Your task to perform on an android device: turn off translation in the chrome app Image 0: 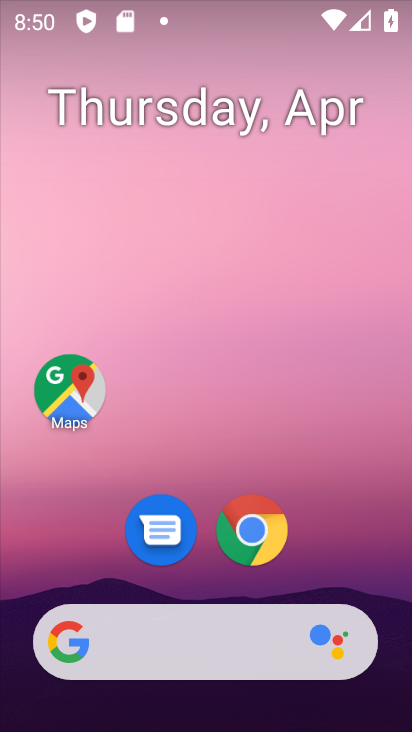
Step 0: drag from (375, 554) to (305, 96)
Your task to perform on an android device: turn off translation in the chrome app Image 1: 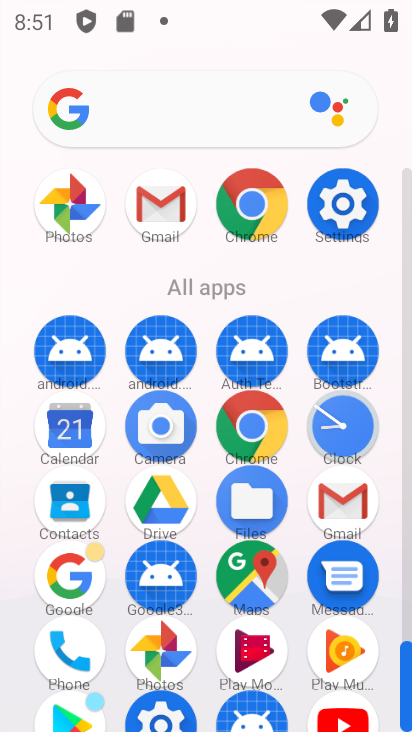
Step 1: click (257, 430)
Your task to perform on an android device: turn off translation in the chrome app Image 2: 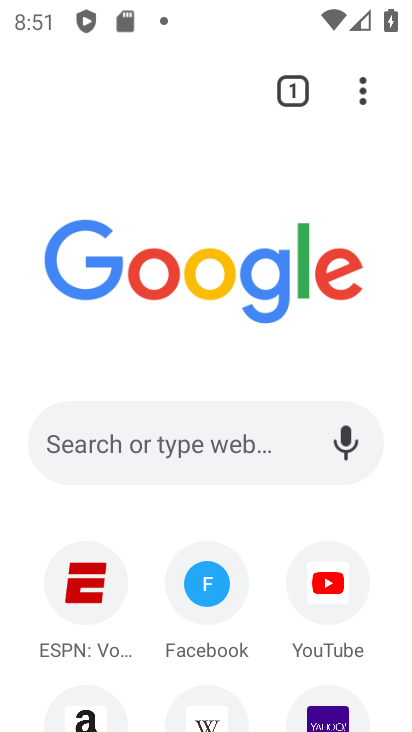
Step 2: click (366, 80)
Your task to perform on an android device: turn off translation in the chrome app Image 3: 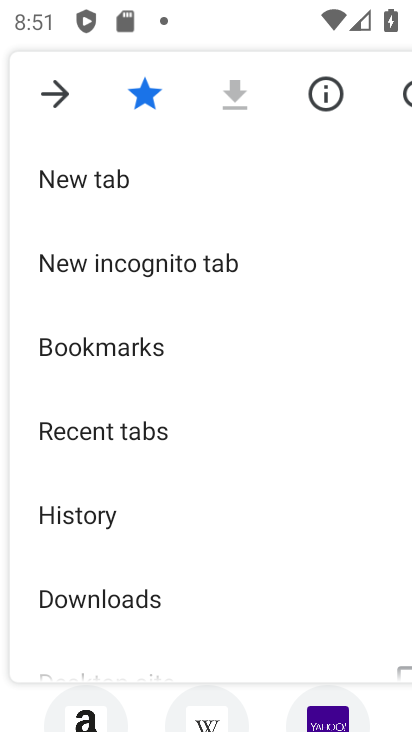
Step 3: drag from (142, 601) to (167, 283)
Your task to perform on an android device: turn off translation in the chrome app Image 4: 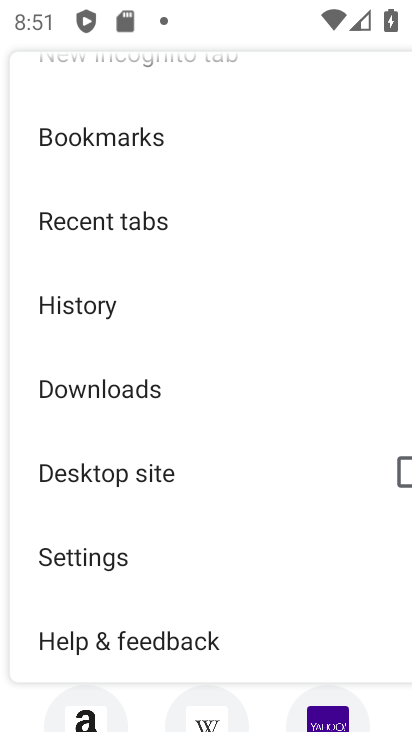
Step 4: click (128, 558)
Your task to perform on an android device: turn off translation in the chrome app Image 5: 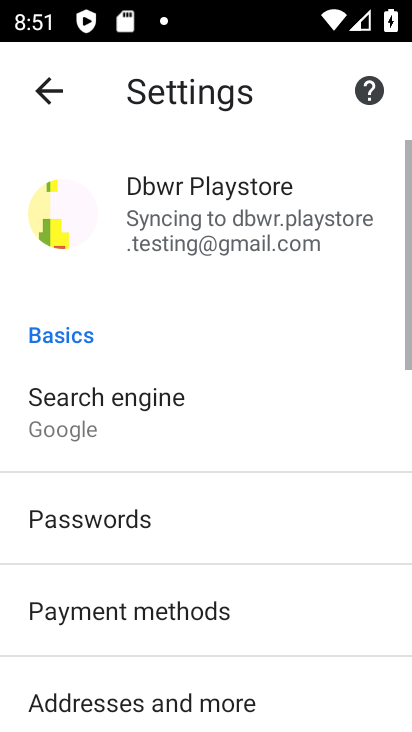
Step 5: drag from (188, 621) to (275, 236)
Your task to perform on an android device: turn off translation in the chrome app Image 6: 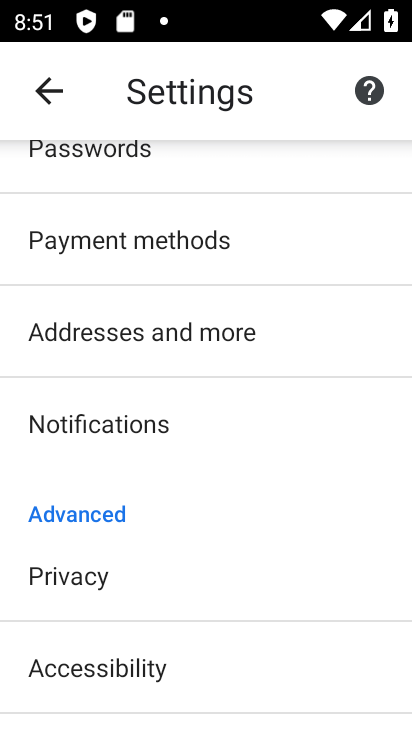
Step 6: drag from (178, 650) to (269, 258)
Your task to perform on an android device: turn off translation in the chrome app Image 7: 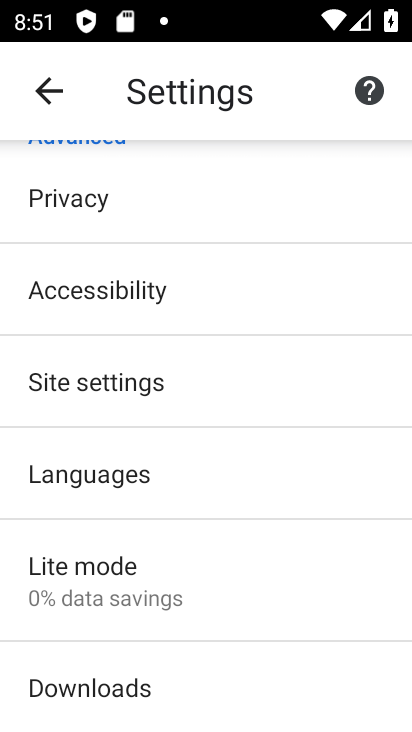
Step 7: click (215, 465)
Your task to perform on an android device: turn off translation in the chrome app Image 8: 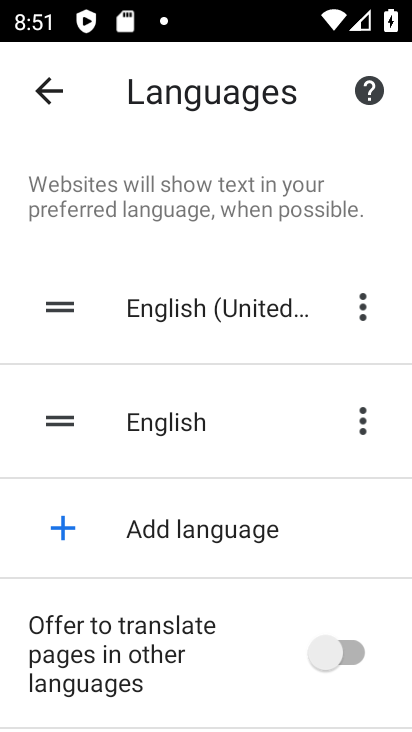
Step 8: task complete